Your task to perform on an android device: change the upload size in google photos Image 0: 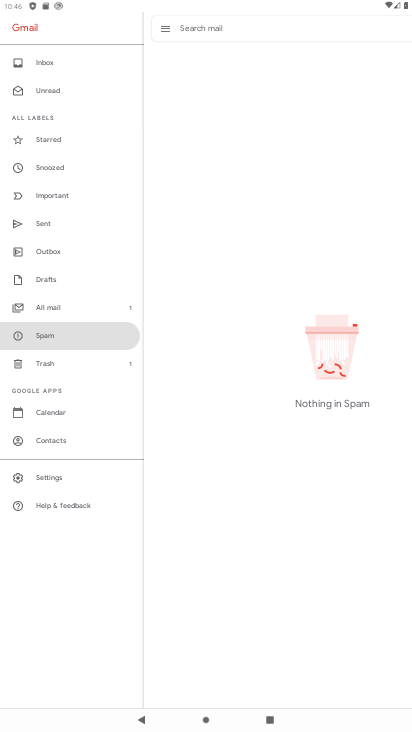
Step 0: press home button
Your task to perform on an android device: change the upload size in google photos Image 1: 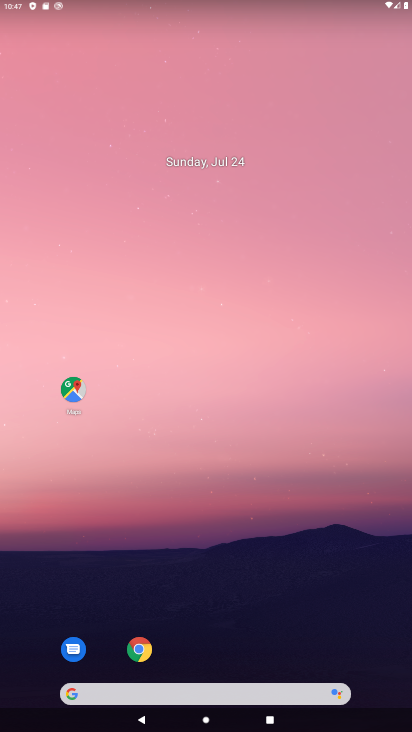
Step 1: drag from (233, 645) to (232, 172)
Your task to perform on an android device: change the upload size in google photos Image 2: 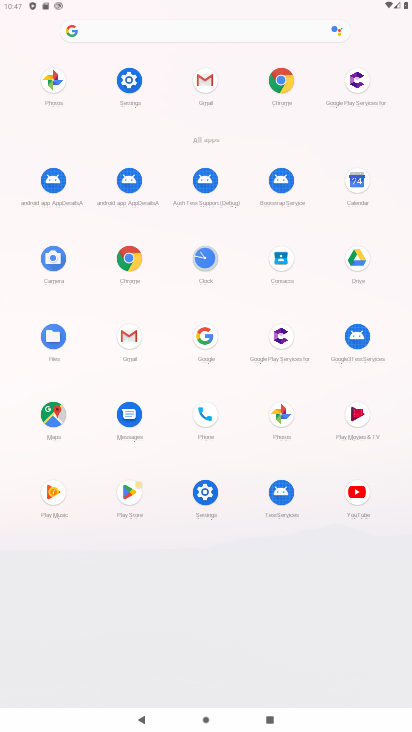
Step 2: click (48, 83)
Your task to perform on an android device: change the upload size in google photos Image 3: 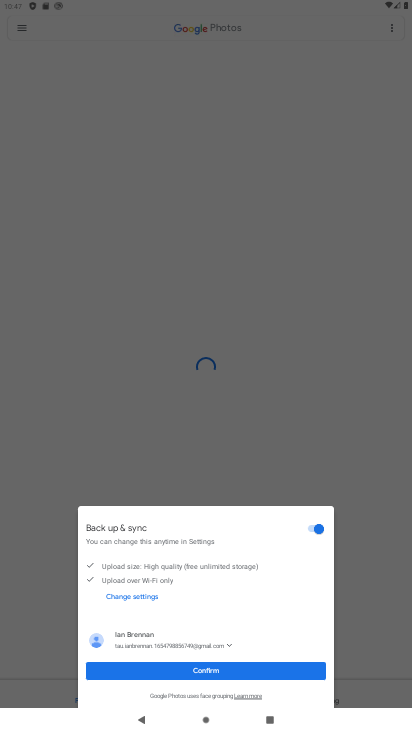
Step 3: click (215, 676)
Your task to perform on an android device: change the upload size in google photos Image 4: 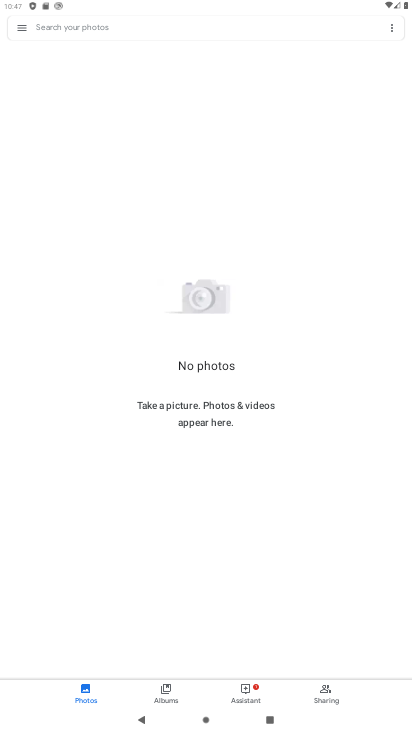
Step 4: click (24, 22)
Your task to perform on an android device: change the upload size in google photos Image 5: 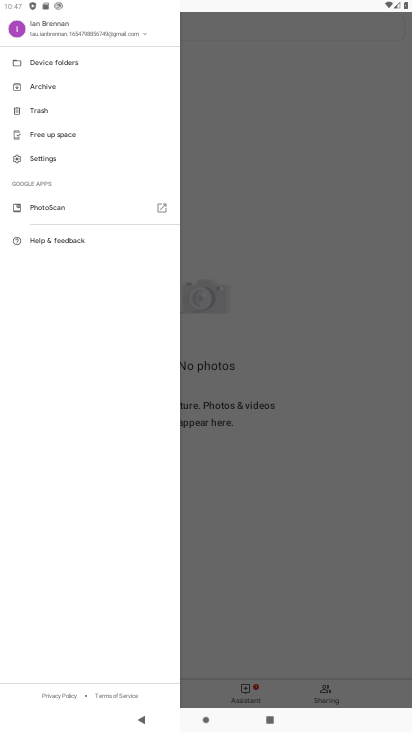
Step 5: click (54, 162)
Your task to perform on an android device: change the upload size in google photos Image 6: 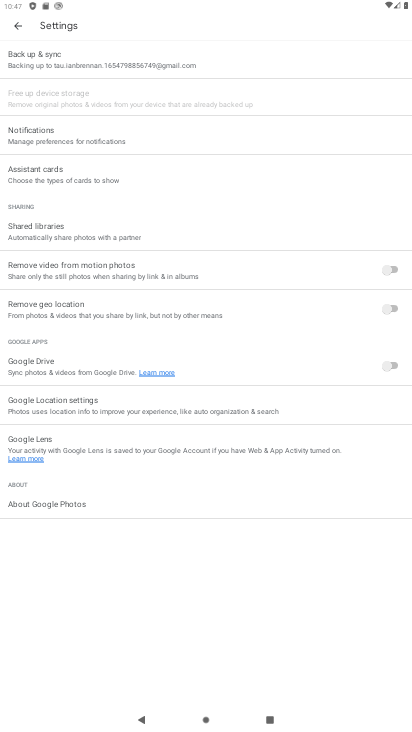
Step 6: click (131, 62)
Your task to perform on an android device: change the upload size in google photos Image 7: 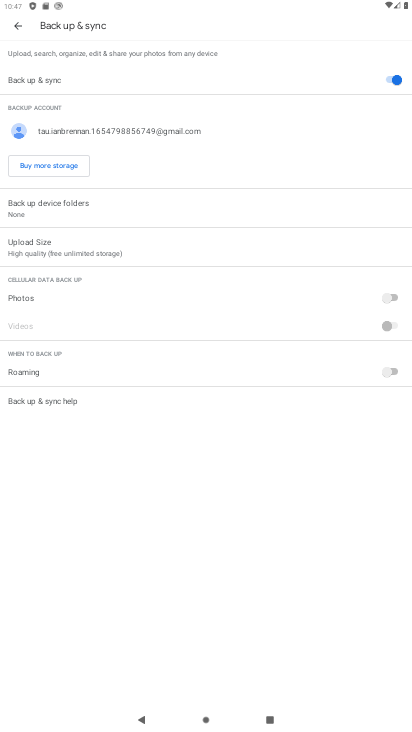
Step 7: click (129, 252)
Your task to perform on an android device: change the upload size in google photos Image 8: 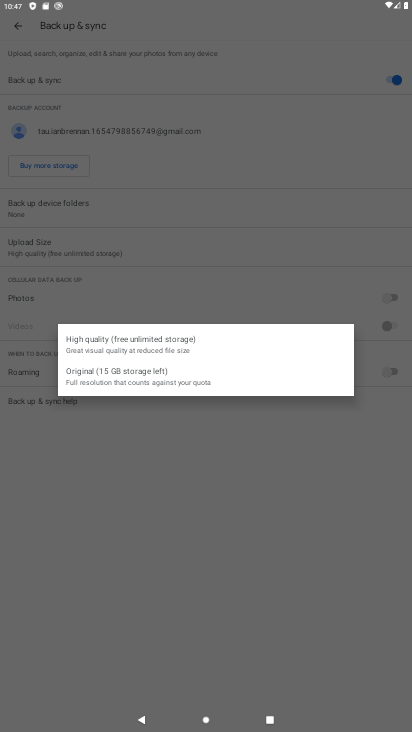
Step 8: click (156, 336)
Your task to perform on an android device: change the upload size in google photos Image 9: 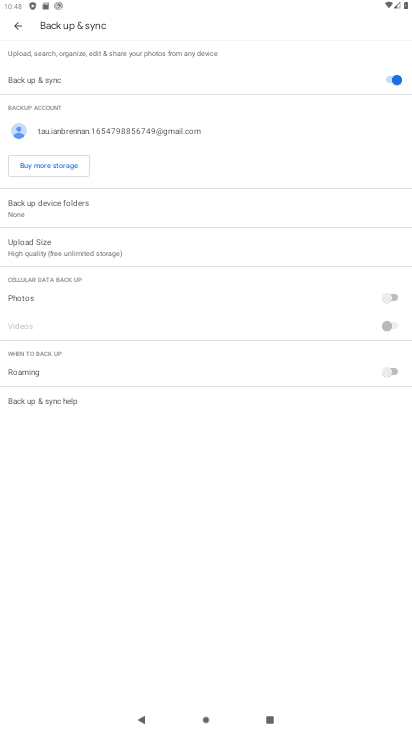
Step 9: task complete